Your task to perform on an android device: turn off translation in the chrome app Image 0: 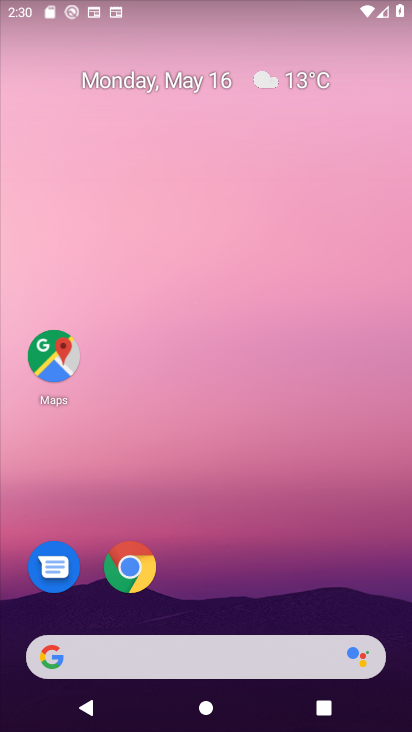
Step 0: click (142, 561)
Your task to perform on an android device: turn off translation in the chrome app Image 1: 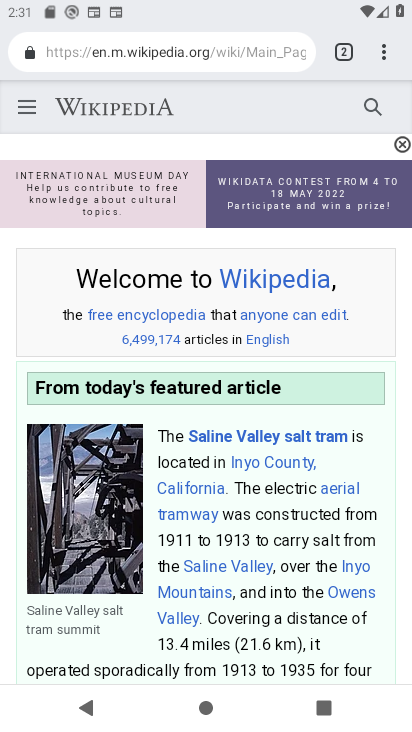
Step 1: click (379, 50)
Your task to perform on an android device: turn off translation in the chrome app Image 2: 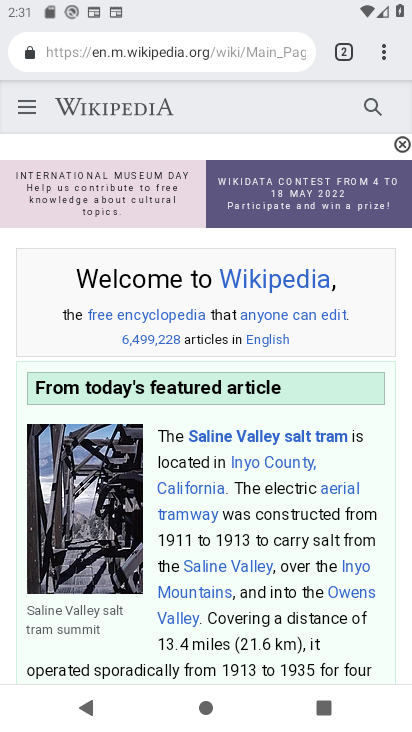
Step 2: click (383, 57)
Your task to perform on an android device: turn off translation in the chrome app Image 3: 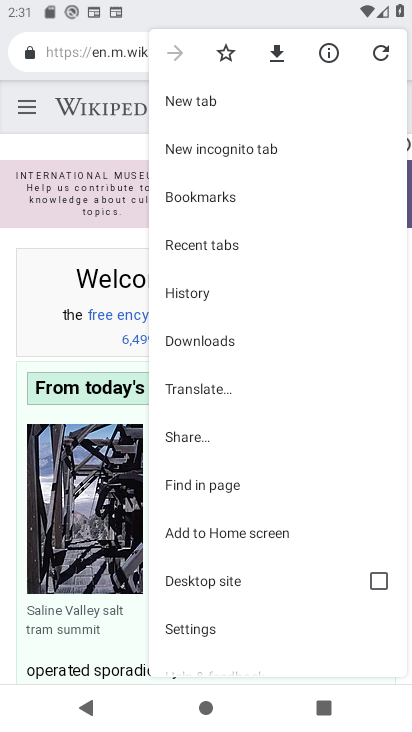
Step 3: click (210, 624)
Your task to perform on an android device: turn off translation in the chrome app Image 4: 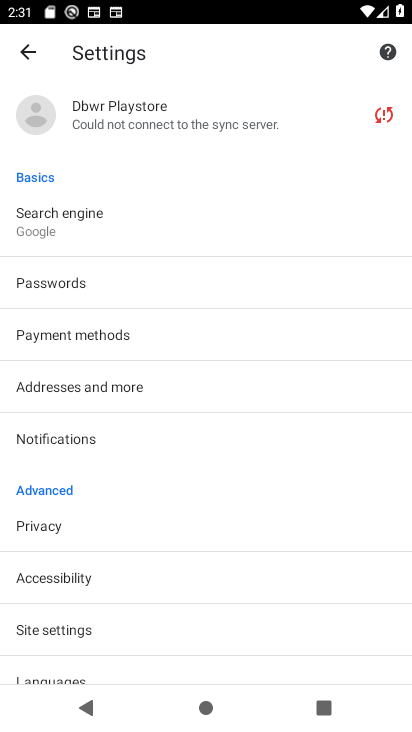
Step 4: drag from (173, 622) to (168, 453)
Your task to perform on an android device: turn off translation in the chrome app Image 5: 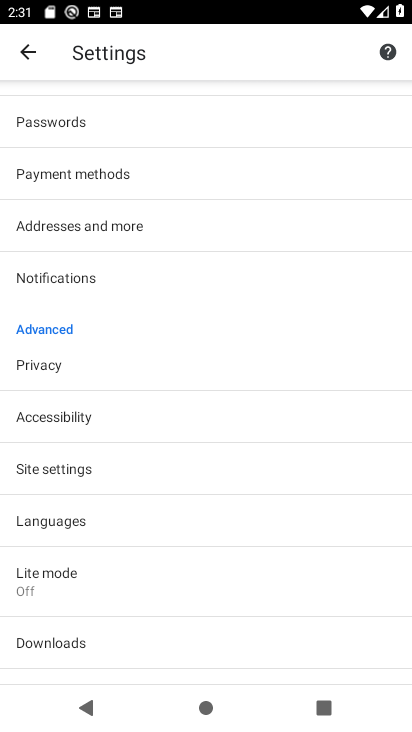
Step 5: click (84, 523)
Your task to perform on an android device: turn off translation in the chrome app Image 6: 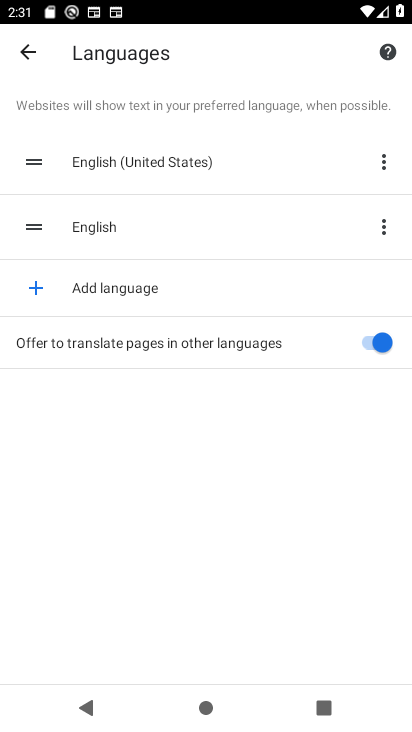
Step 6: click (369, 343)
Your task to perform on an android device: turn off translation in the chrome app Image 7: 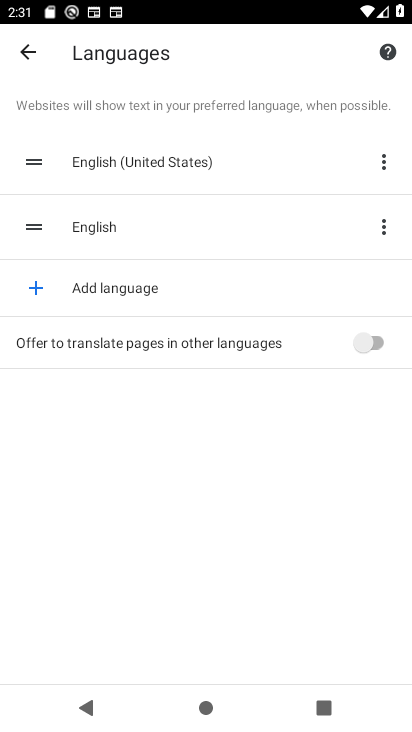
Step 7: task complete